Your task to perform on an android device: Open Chrome and go to settings Image 0: 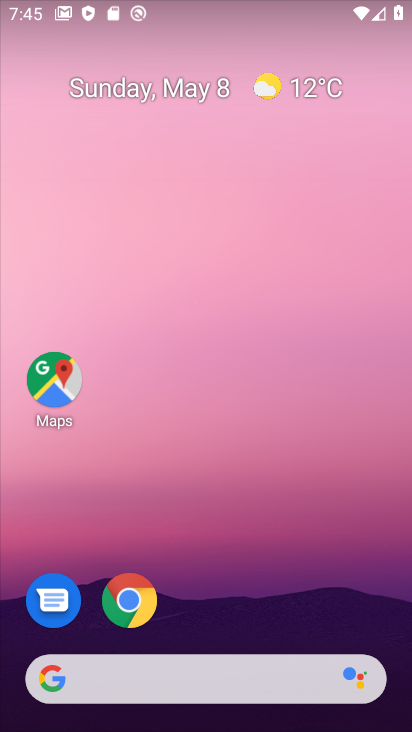
Step 0: click (131, 603)
Your task to perform on an android device: Open Chrome and go to settings Image 1: 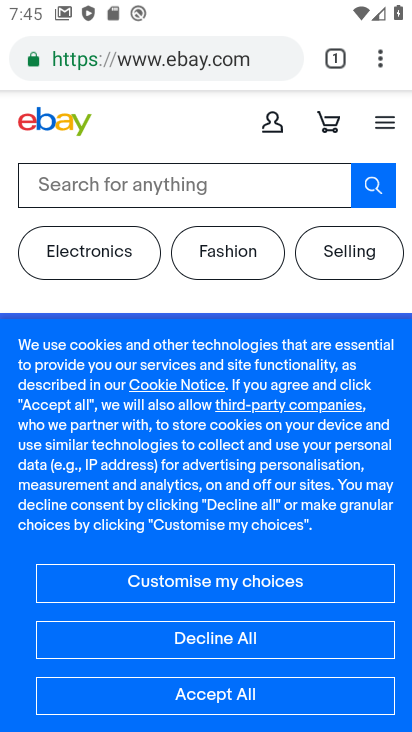
Step 1: click (398, 62)
Your task to perform on an android device: Open Chrome and go to settings Image 2: 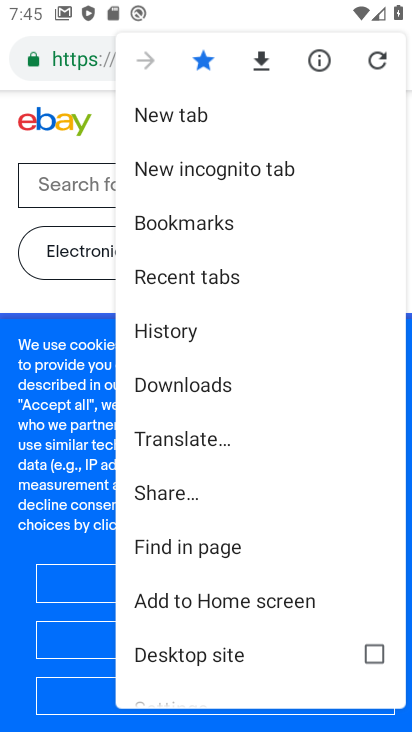
Step 2: drag from (217, 511) to (227, 260)
Your task to perform on an android device: Open Chrome and go to settings Image 3: 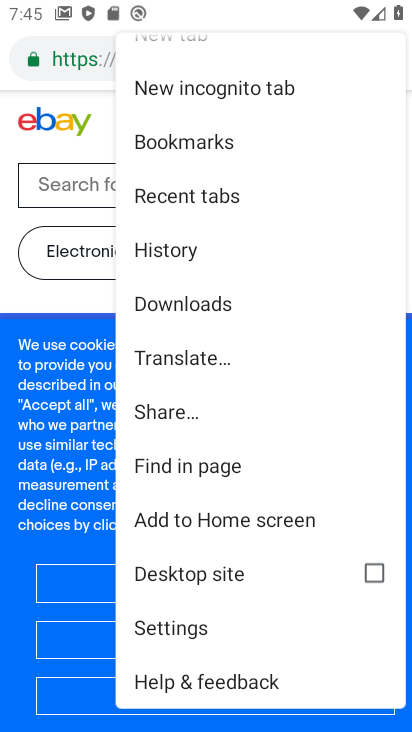
Step 3: click (202, 621)
Your task to perform on an android device: Open Chrome and go to settings Image 4: 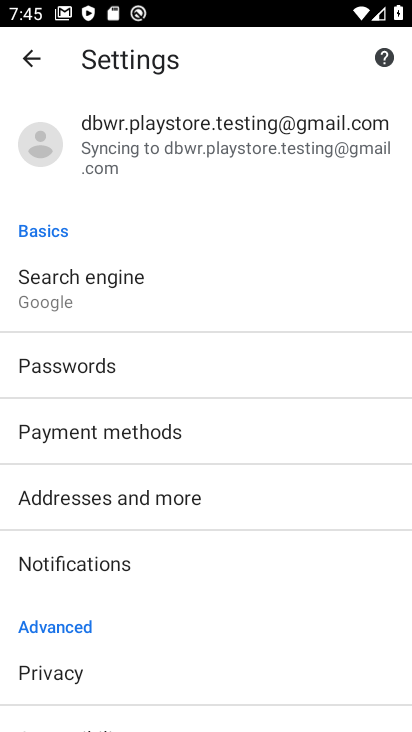
Step 4: task complete